Your task to perform on an android device: toggle improve location accuracy Image 0: 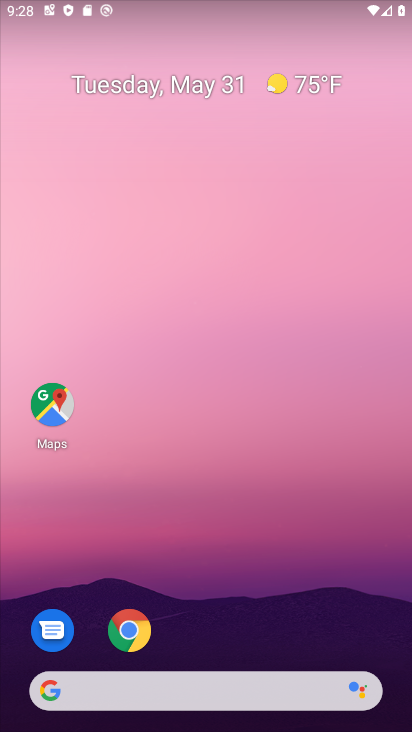
Step 0: drag from (219, 685) to (279, 244)
Your task to perform on an android device: toggle improve location accuracy Image 1: 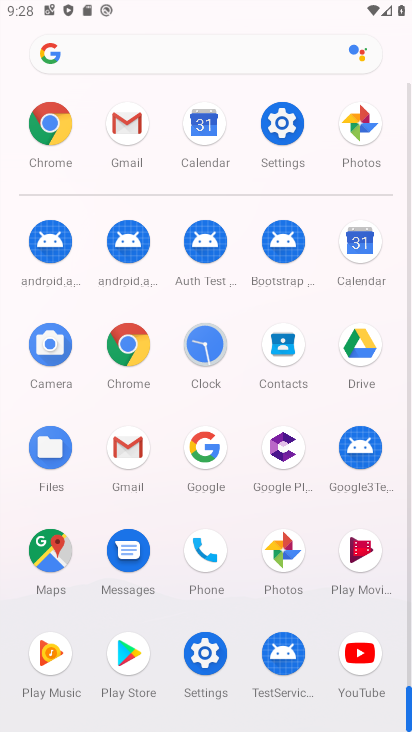
Step 1: click (277, 139)
Your task to perform on an android device: toggle improve location accuracy Image 2: 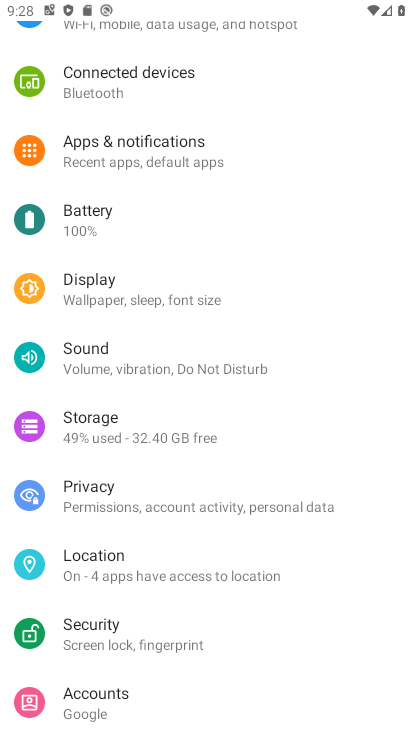
Step 2: drag from (199, 616) to (222, 335)
Your task to perform on an android device: toggle improve location accuracy Image 3: 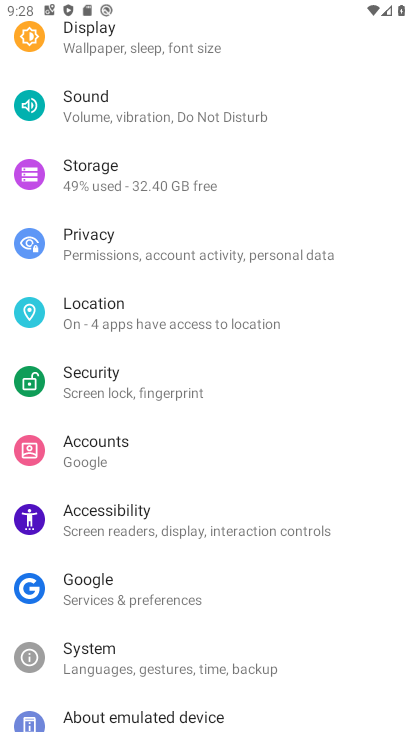
Step 3: drag from (177, 582) to (218, 274)
Your task to perform on an android device: toggle improve location accuracy Image 4: 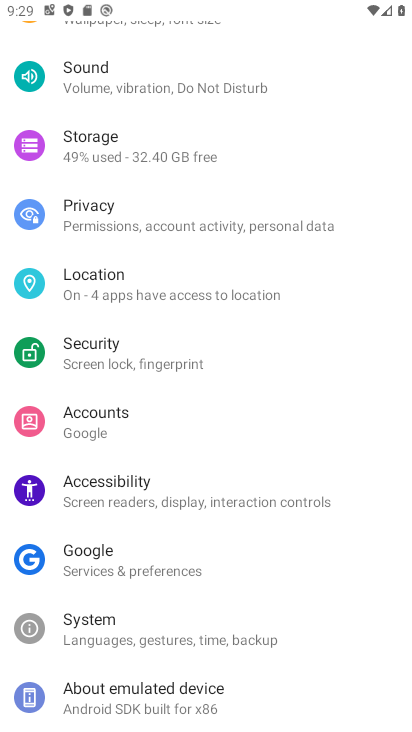
Step 4: click (156, 283)
Your task to perform on an android device: toggle improve location accuracy Image 5: 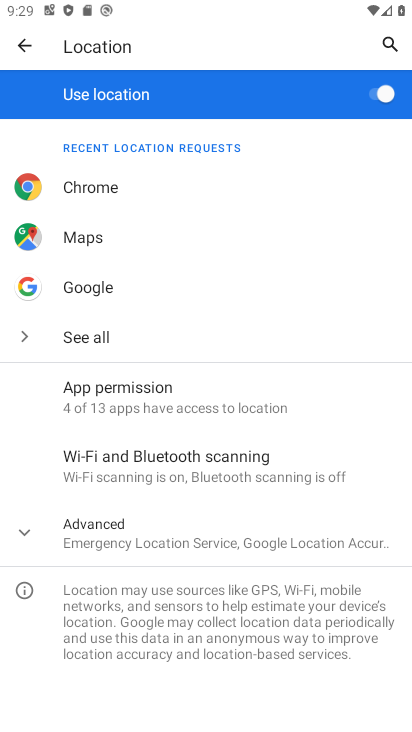
Step 5: click (169, 545)
Your task to perform on an android device: toggle improve location accuracy Image 6: 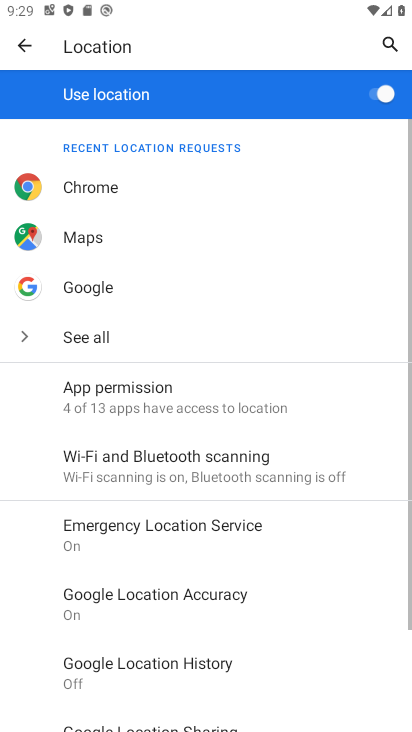
Step 6: drag from (169, 545) to (210, 238)
Your task to perform on an android device: toggle improve location accuracy Image 7: 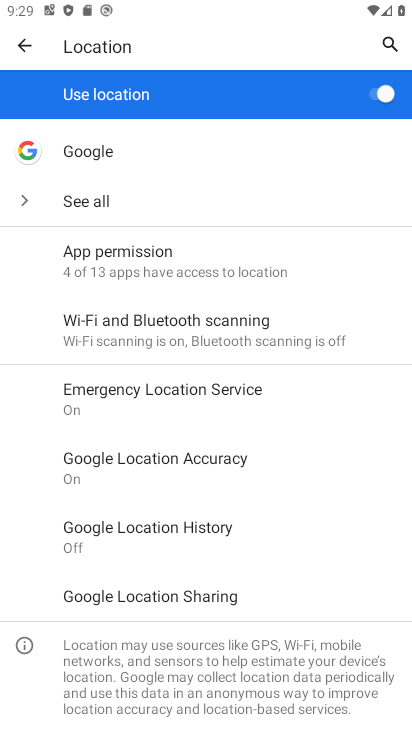
Step 7: click (178, 474)
Your task to perform on an android device: toggle improve location accuracy Image 8: 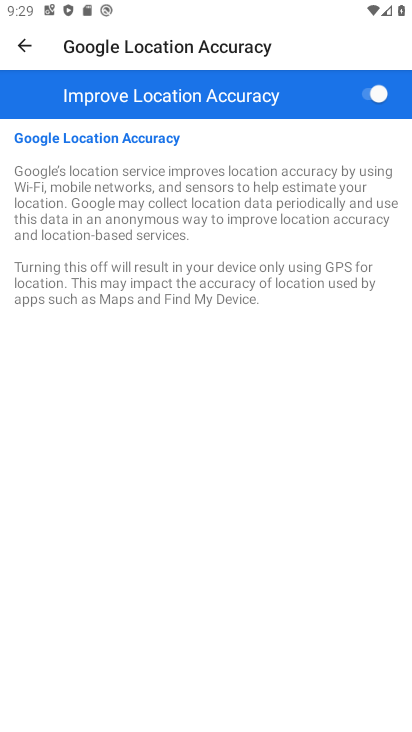
Step 8: click (368, 102)
Your task to perform on an android device: toggle improve location accuracy Image 9: 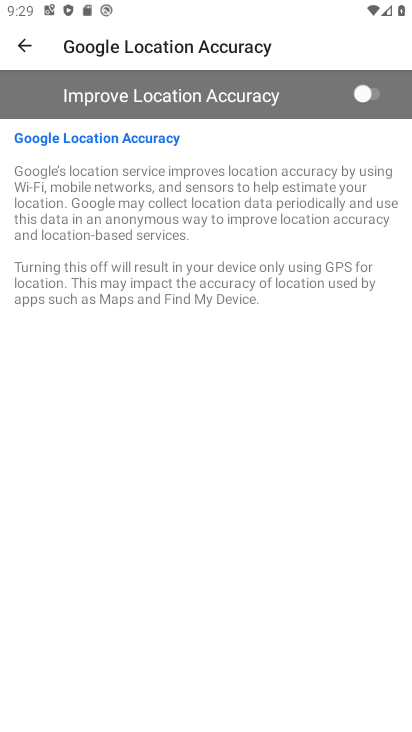
Step 9: task complete